Your task to perform on an android device: turn on notifications settings in the gmail app Image 0: 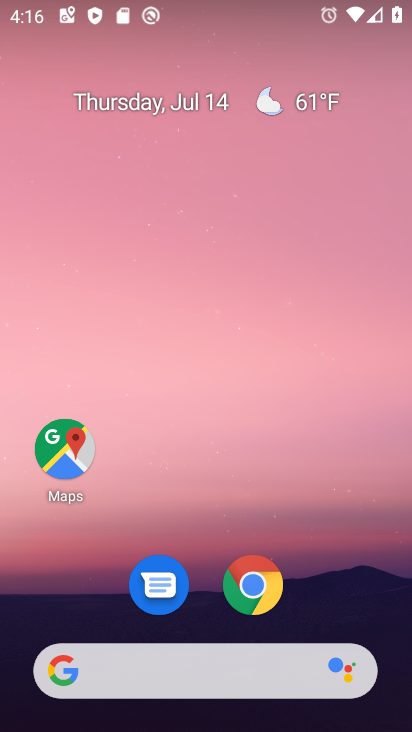
Step 0: drag from (319, 567) to (318, 86)
Your task to perform on an android device: turn on notifications settings in the gmail app Image 1: 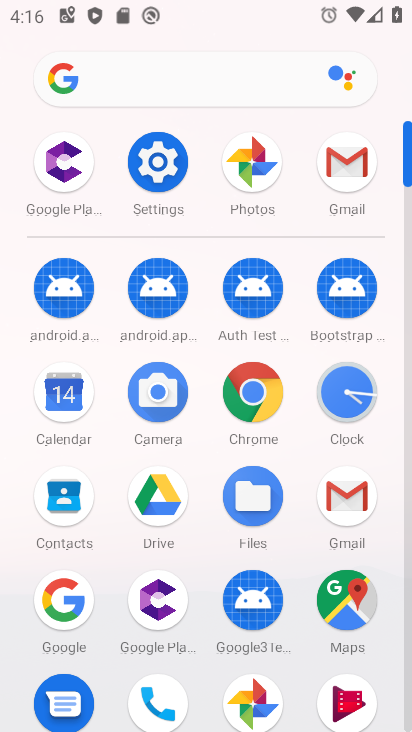
Step 1: click (350, 170)
Your task to perform on an android device: turn on notifications settings in the gmail app Image 2: 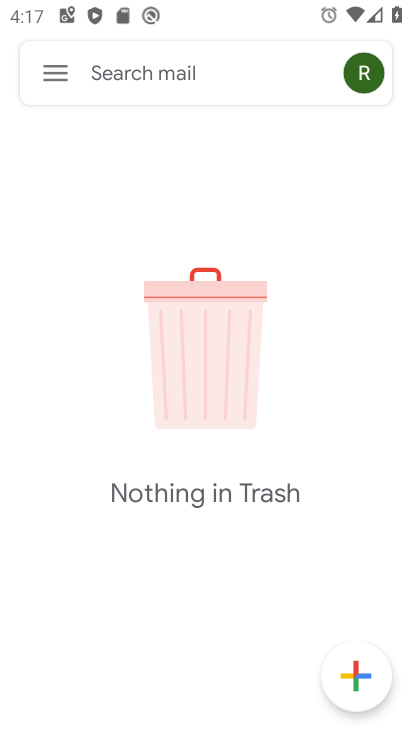
Step 2: click (60, 77)
Your task to perform on an android device: turn on notifications settings in the gmail app Image 3: 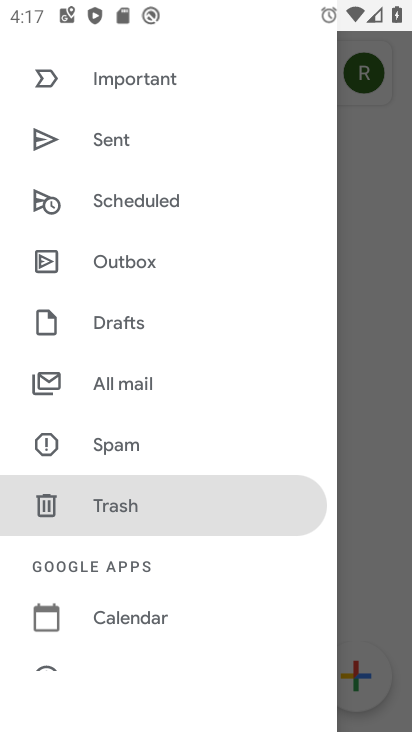
Step 3: drag from (182, 426) to (233, 144)
Your task to perform on an android device: turn on notifications settings in the gmail app Image 4: 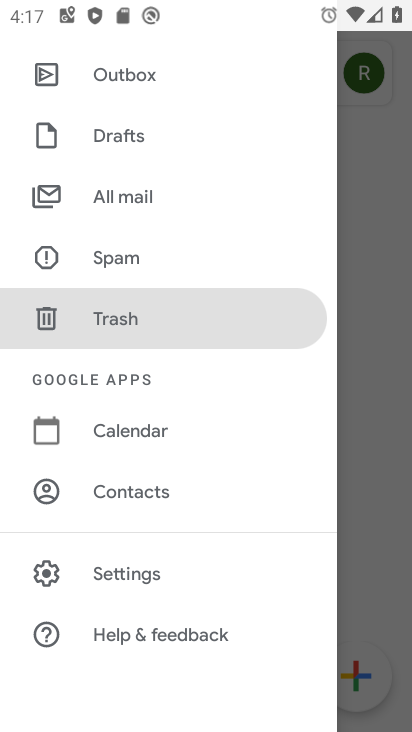
Step 4: click (146, 573)
Your task to perform on an android device: turn on notifications settings in the gmail app Image 5: 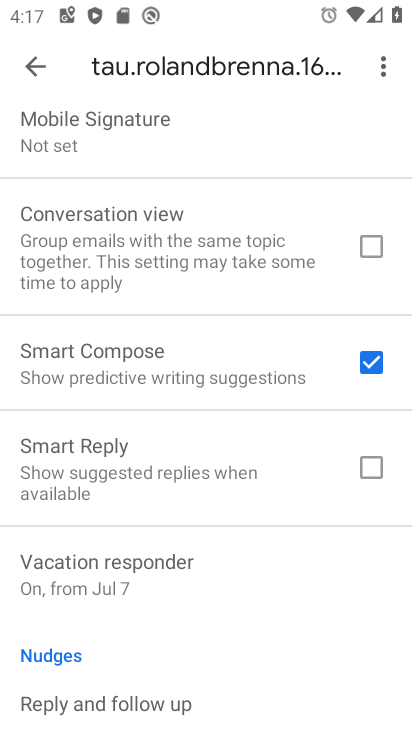
Step 5: drag from (223, 189) to (206, 638)
Your task to perform on an android device: turn on notifications settings in the gmail app Image 6: 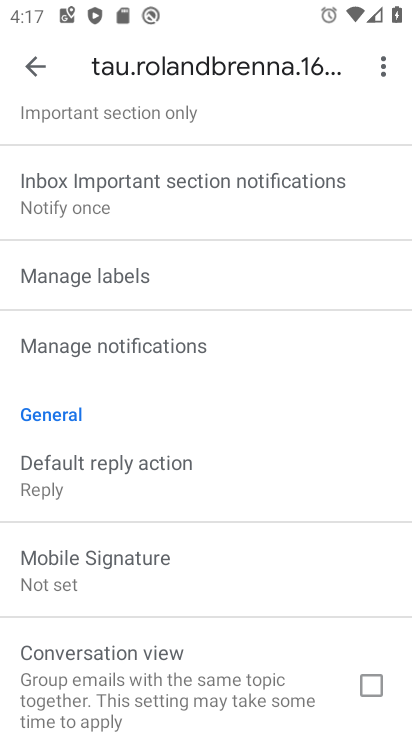
Step 6: click (177, 345)
Your task to perform on an android device: turn on notifications settings in the gmail app Image 7: 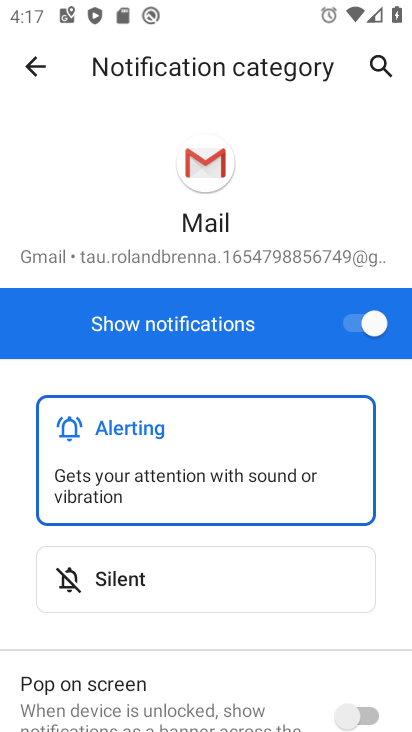
Step 7: task complete